Your task to perform on an android device: Go to ESPN.com Image 0: 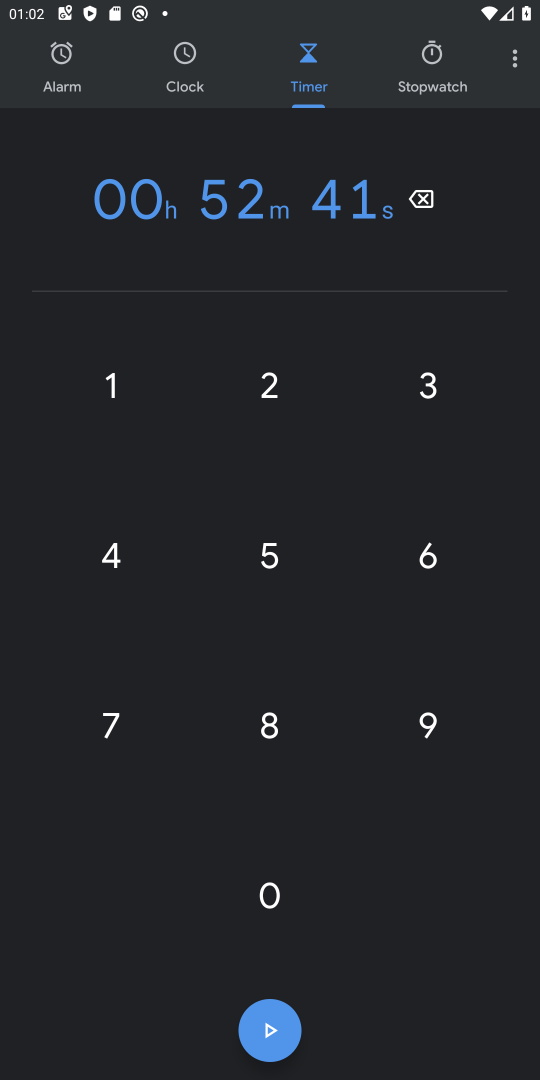
Step 0: press home button
Your task to perform on an android device: Go to ESPN.com Image 1: 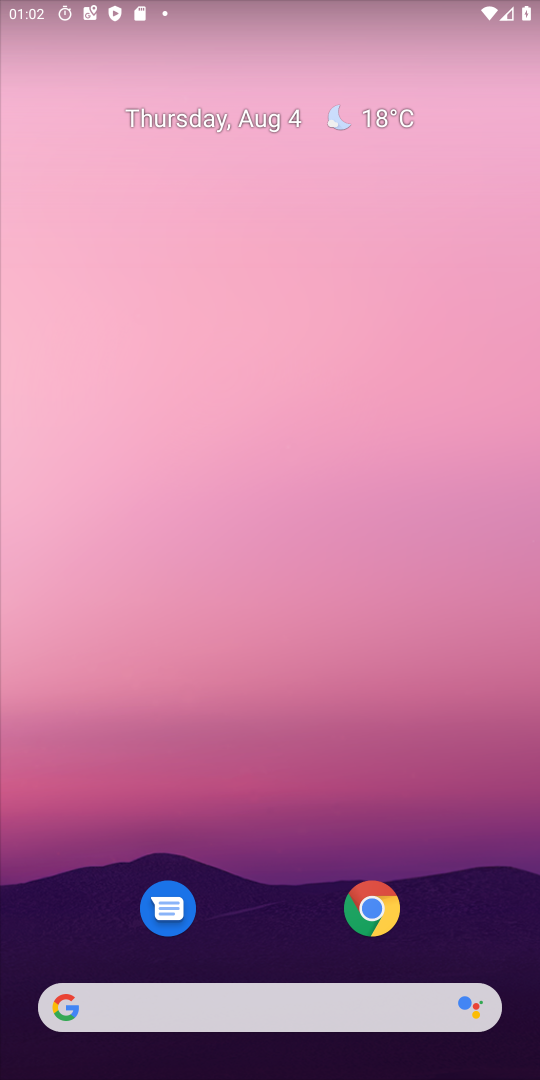
Step 1: drag from (321, 1032) to (301, 300)
Your task to perform on an android device: Go to ESPN.com Image 2: 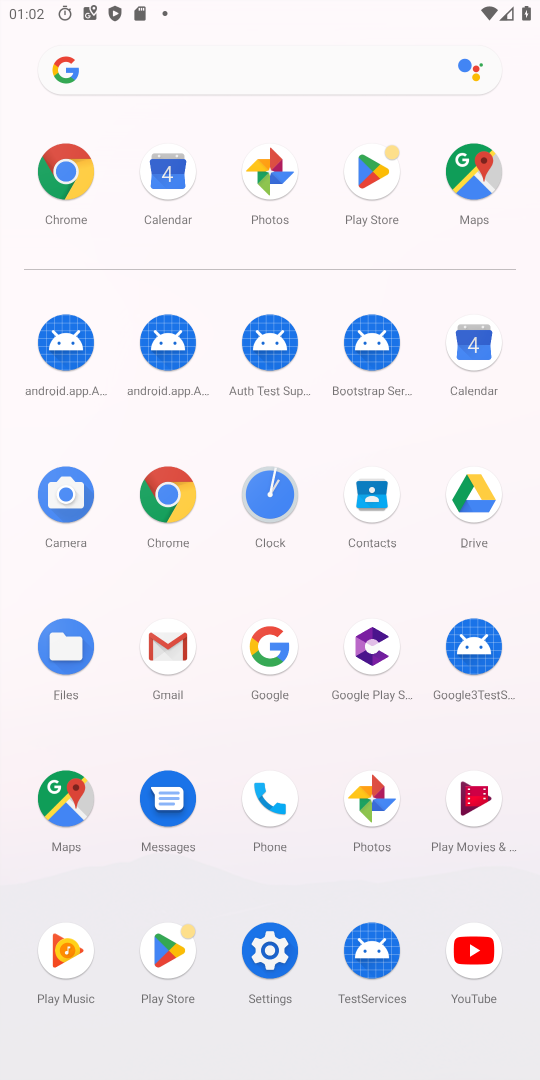
Step 2: click (81, 170)
Your task to perform on an android device: Go to ESPN.com Image 3: 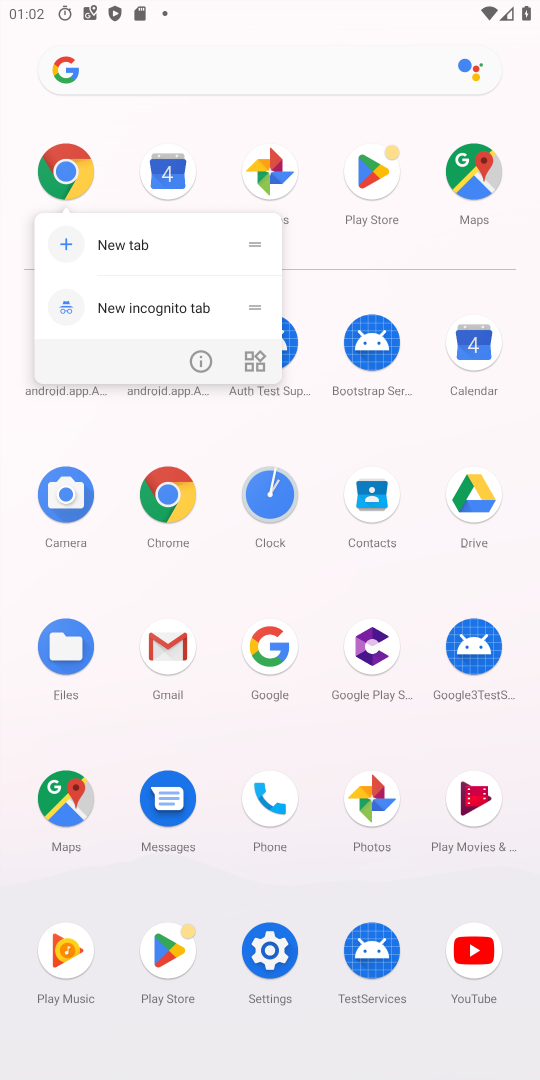
Step 3: click (47, 185)
Your task to perform on an android device: Go to ESPN.com Image 4: 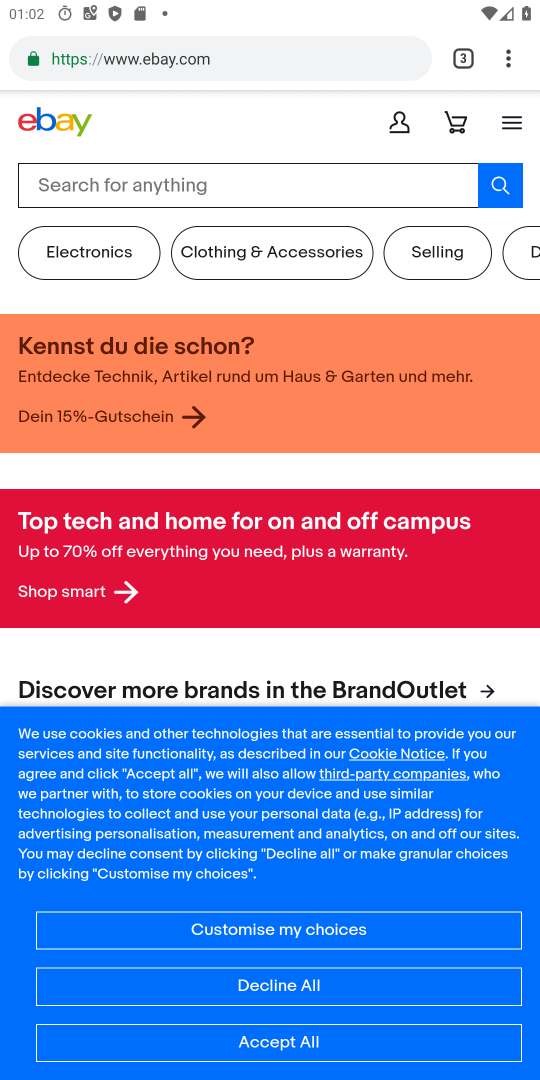
Step 4: click (468, 68)
Your task to perform on an android device: Go to ESPN.com Image 5: 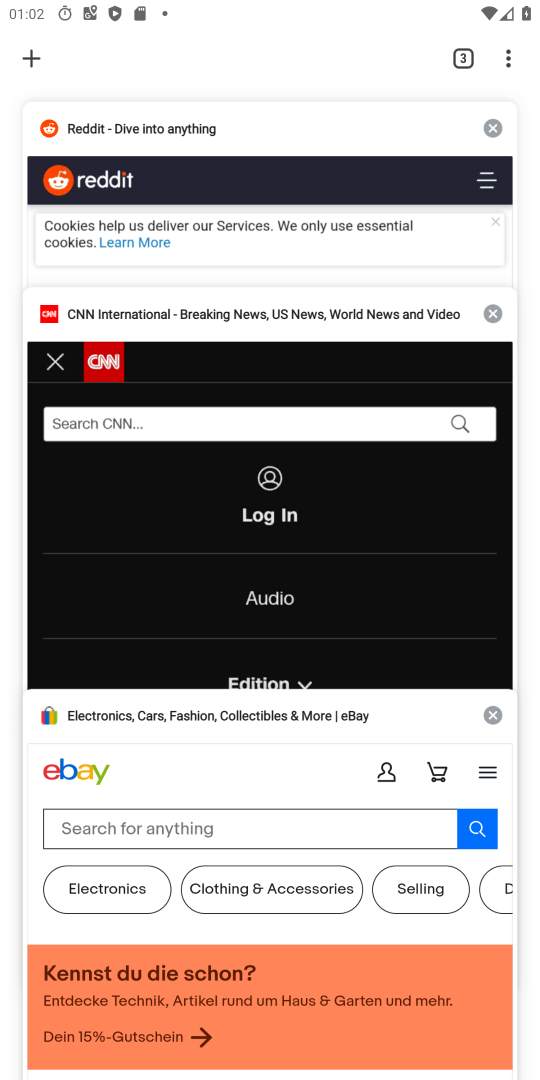
Step 5: click (28, 51)
Your task to perform on an android device: Go to ESPN.com Image 6: 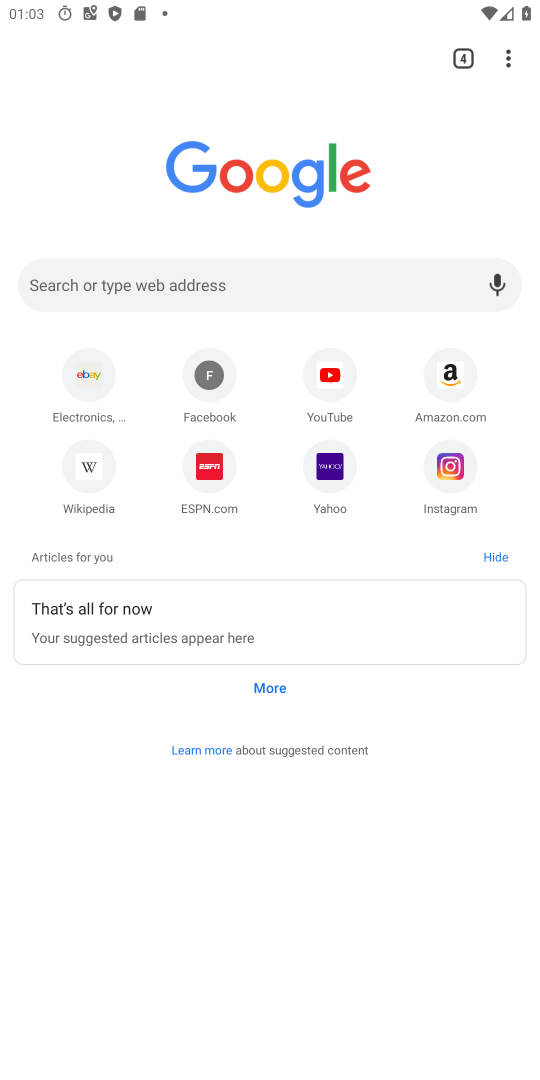
Step 6: click (195, 482)
Your task to perform on an android device: Go to ESPN.com Image 7: 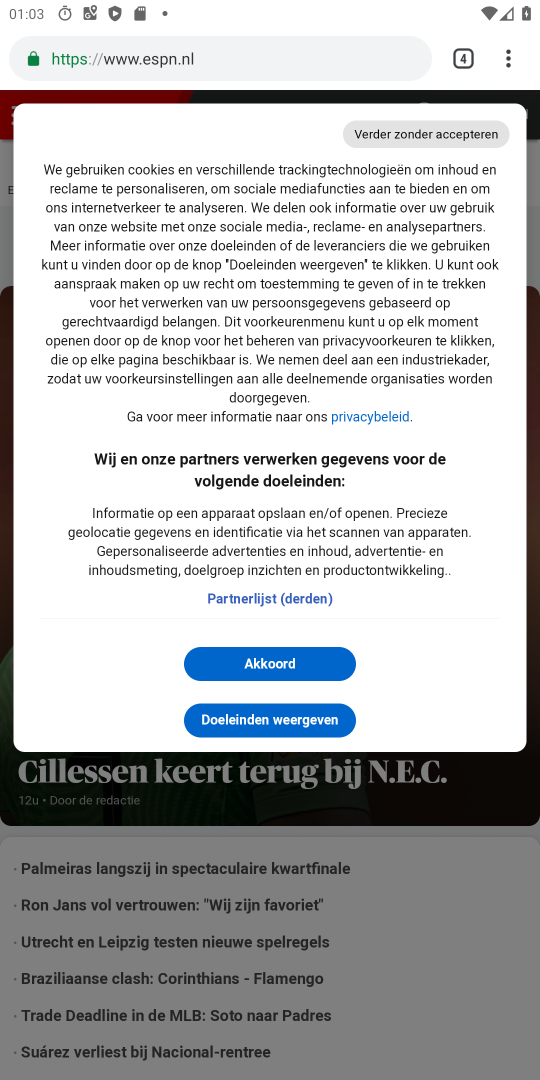
Step 7: click (269, 661)
Your task to perform on an android device: Go to ESPN.com Image 8: 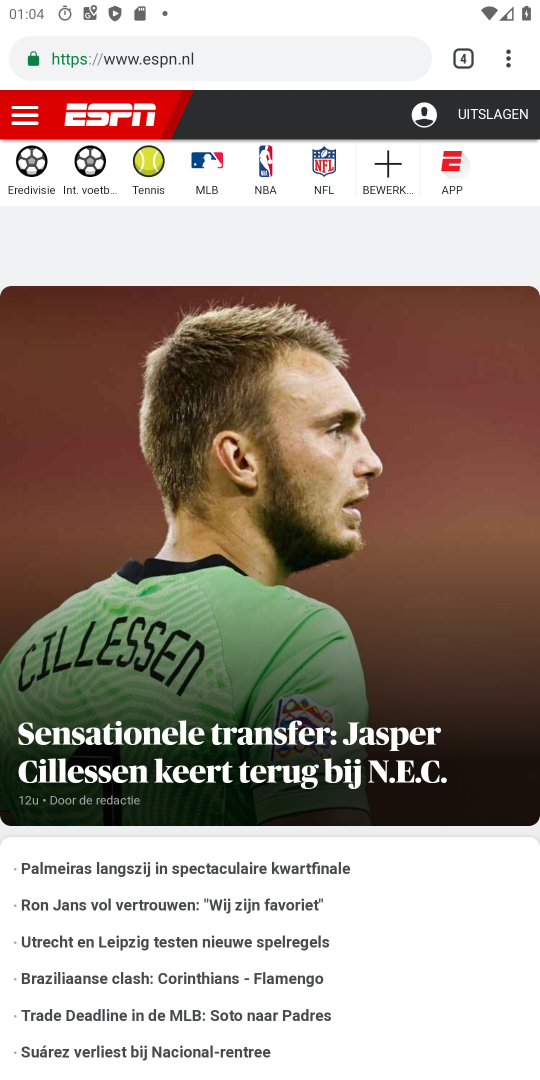
Step 8: task complete